Your task to perform on an android device: Show the shopping cart on ebay. Add "logitech g pro" to the cart on ebay, then select checkout. Image 0: 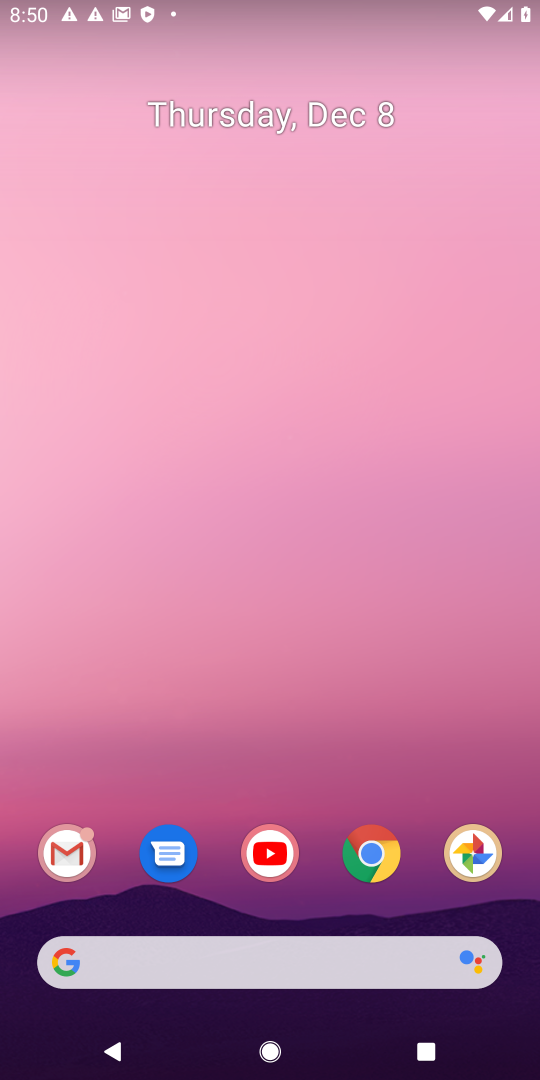
Step 0: click (235, 952)
Your task to perform on an android device: Show the shopping cart on ebay. Add "logitech g pro" to the cart on ebay, then select checkout. Image 1: 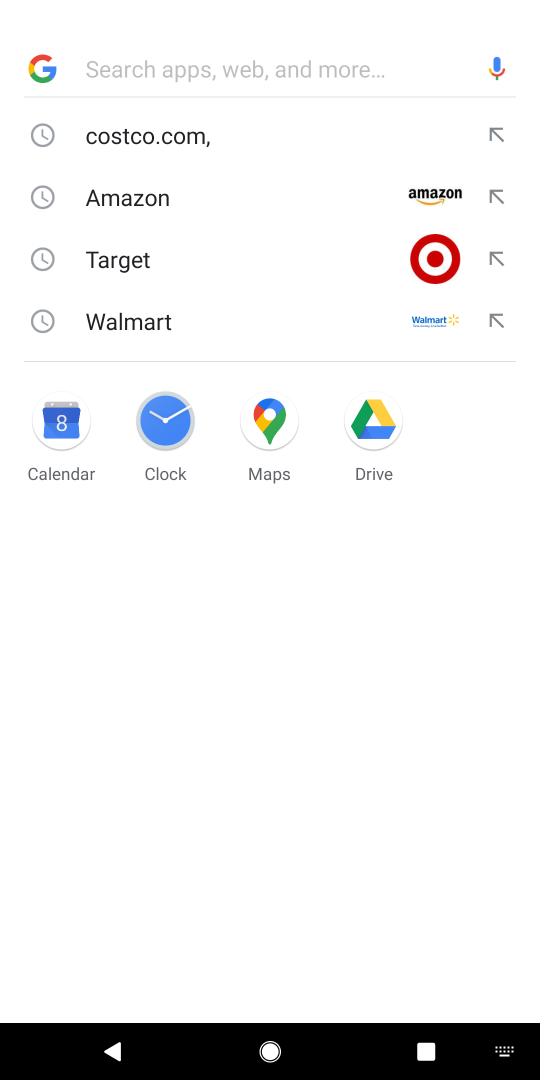
Step 1: type "ebay"
Your task to perform on an android device: Show the shopping cart on ebay. Add "logitech g pro" to the cart on ebay, then select checkout. Image 2: 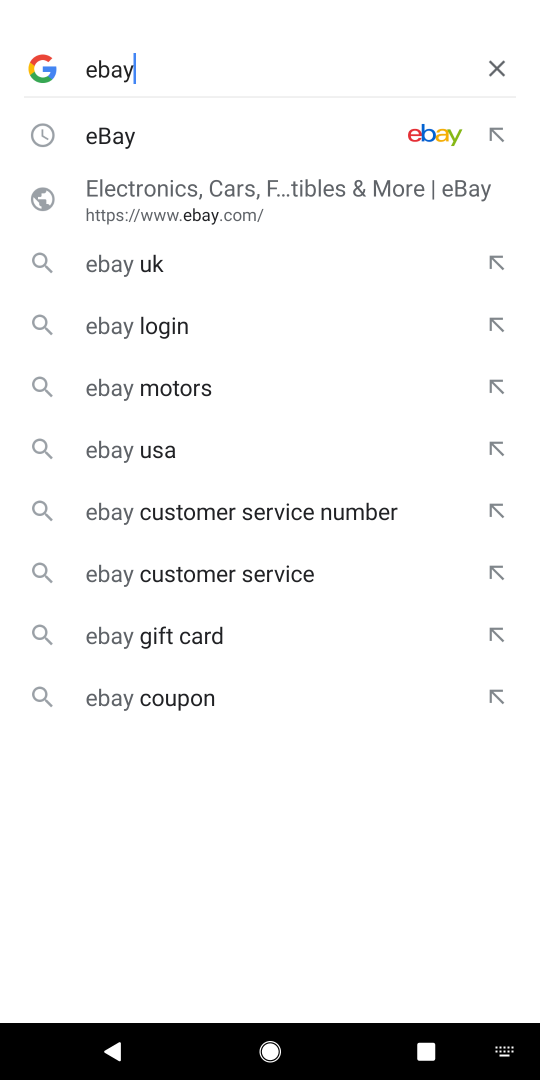
Step 2: click (135, 132)
Your task to perform on an android device: Show the shopping cart on ebay. Add "logitech g pro" to the cart on ebay, then select checkout. Image 3: 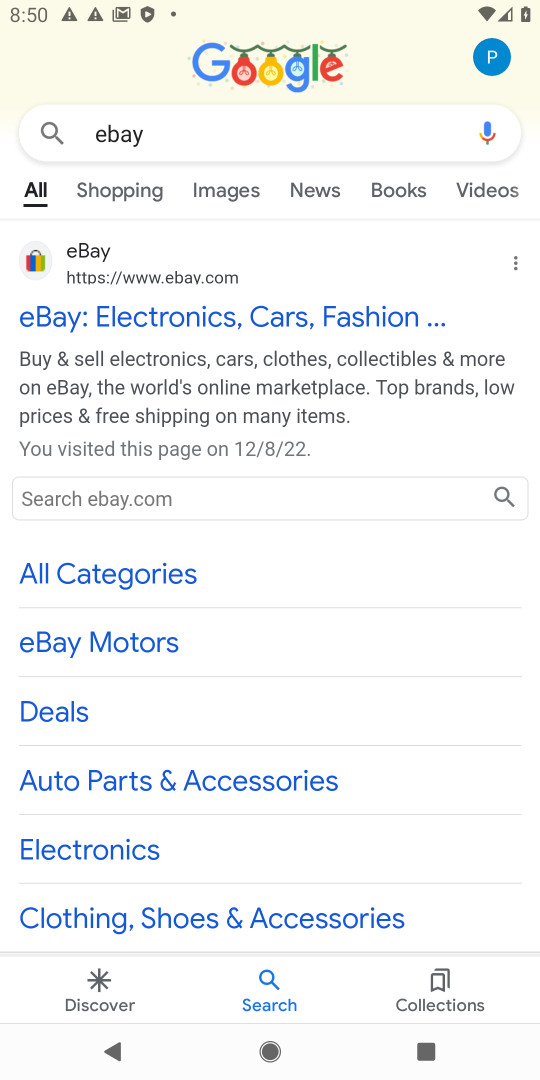
Step 3: click (142, 322)
Your task to perform on an android device: Show the shopping cart on ebay. Add "logitech g pro" to the cart on ebay, then select checkout. Image 4: 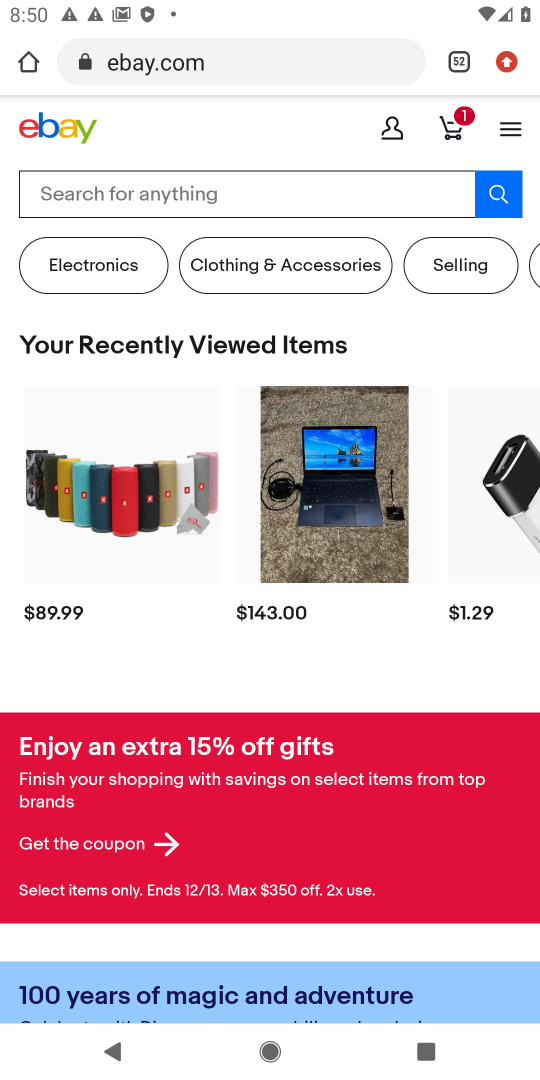
Step 4: click (462, 123)
Your task to perform on an android device: Show the shopping cart on ebay. Add "logitech g pro" to the cart on ebay, then select checkout. Image 5: 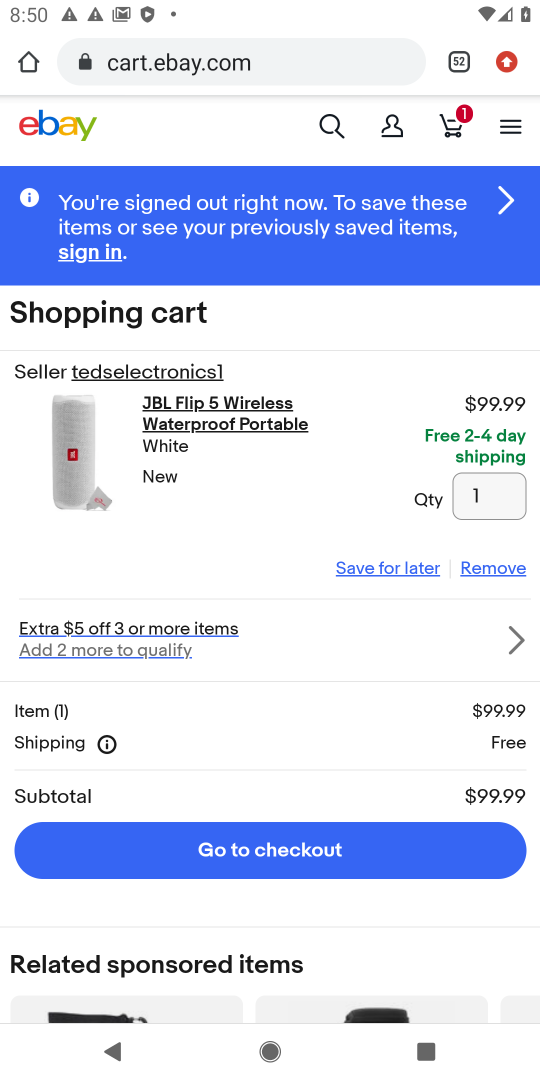
Step 5: click (330, 123)
Your task to perform on an android device: Show the shopping cart on ebay. Add "logitech g pro" to the cart on ebay, then select checkout. Image 6: 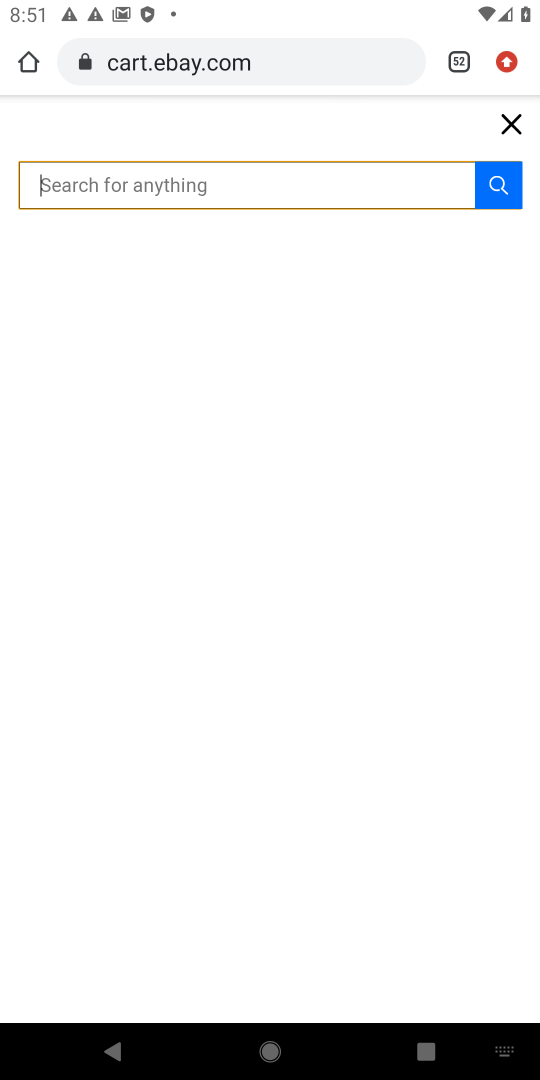
Step 6: type "logitech g pro"
Your task to perform on an android device: Show the shopping cart on ebay. Add "logitech g pro" to the cart on ebay, then select checkout. Image 7: 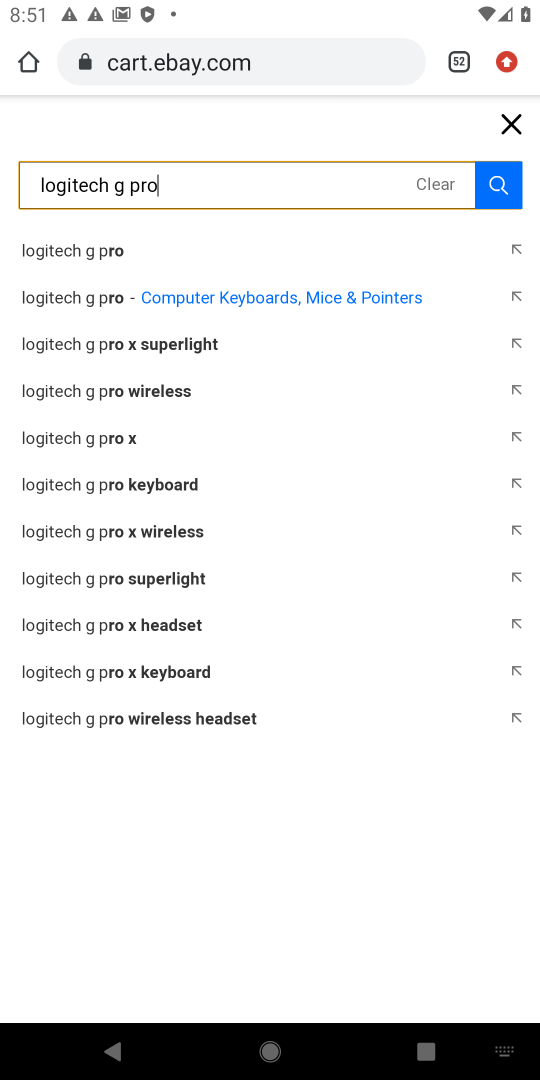
Step 7: click (90, 256)
Your task to perform on an android device: Show the shopping cart on ebay. Add "logitech g pro" to the cart on ebay, then select checkout. Image 8: 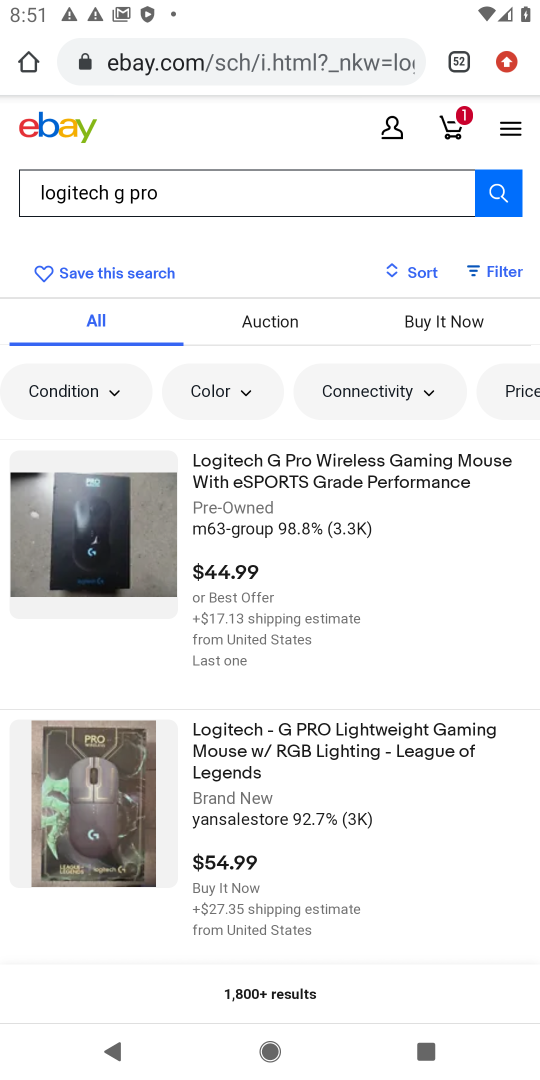
Step 8: click (259, 493)
Your task to perform on an android device: Show the shopping cart on ebay. Add "logitech g pro" to the cart on ebay, then select checkout. Image 9: 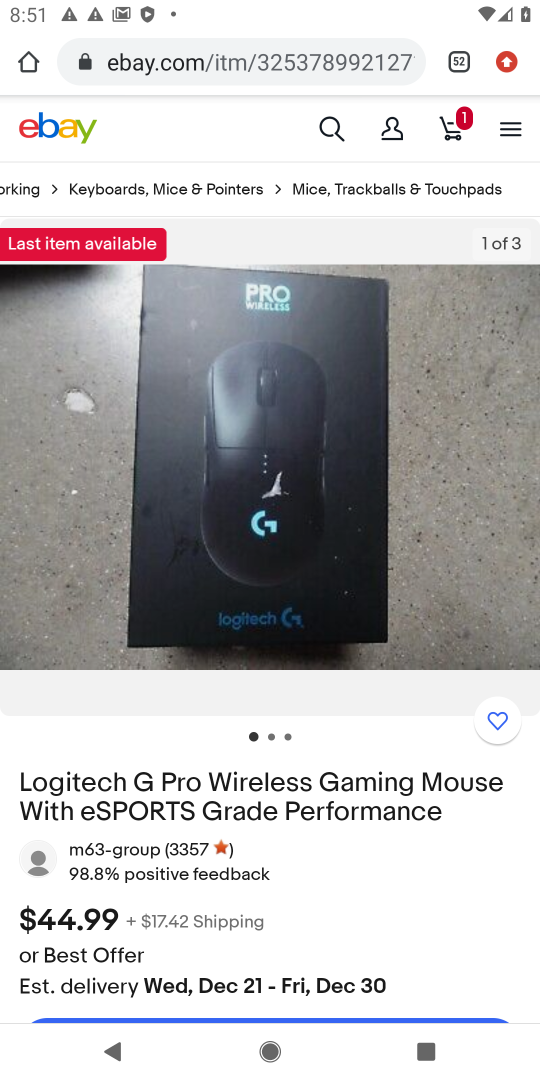
Step 9: drag from (355, 859) to (359, 482)
Your task to perform on an android device: Show the shopping cart on ebay. Add "logitech g pro" to the cart on ebay, then select checkout. Image 10: 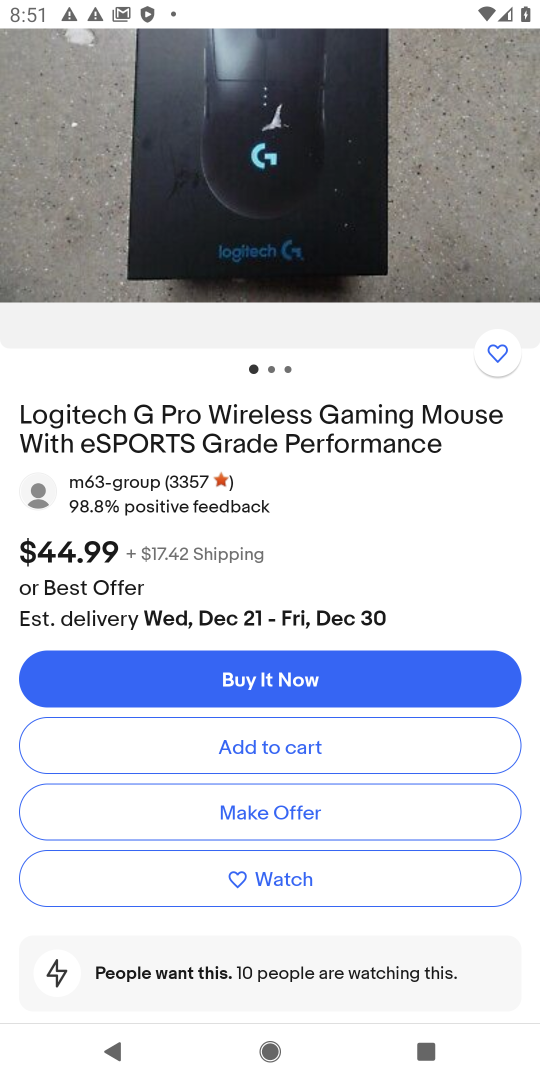
Step 10: click (245, 745)
Your task to perform on an android device: Show the shopping cart on ebay. Add "logitech g pro" to the cart on ebay, then select checkout. Image 11: 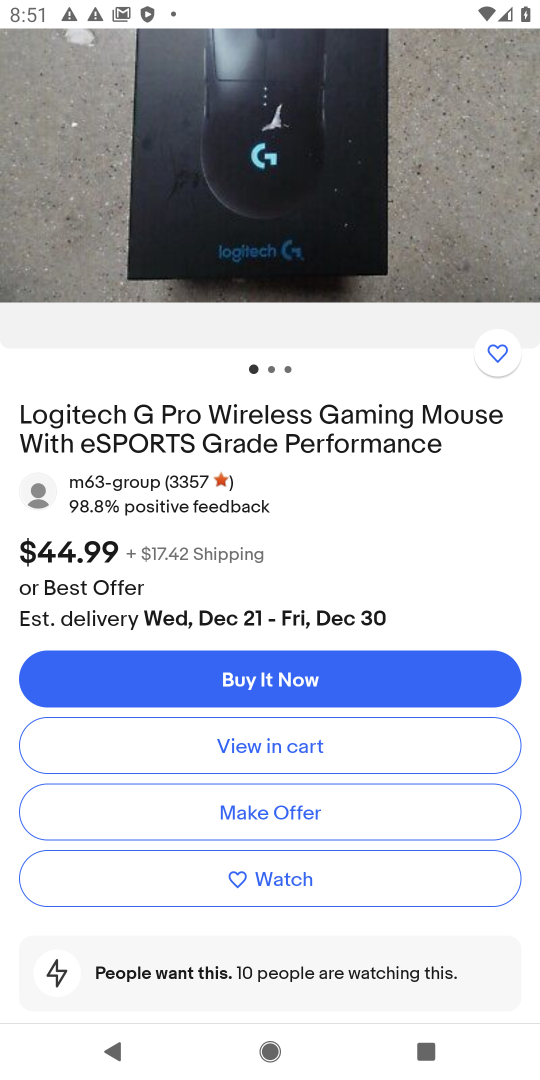
Step 11: click (282, 745)
Your task to perform on an android device: Show the shopping cart on ebay. Add "logitech g pro" to the cart on ebay, then select checkout. Image 12: 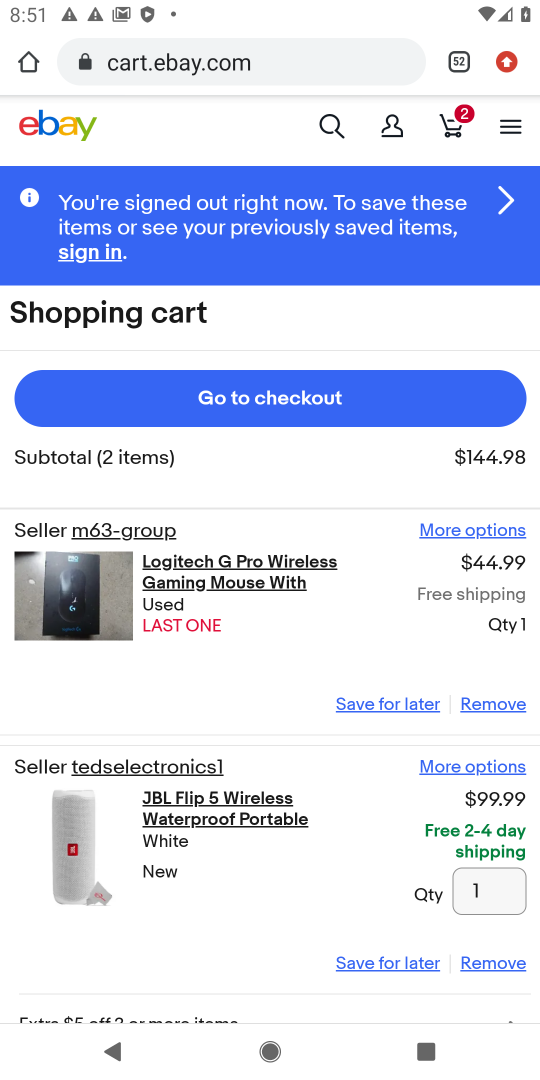
Step 12: click (302, 395)
Your task to perform on an android device: Show the shopping cart on ebay. Add "logitech g pro" to the cart on ebay, then select checkout. Image 13: 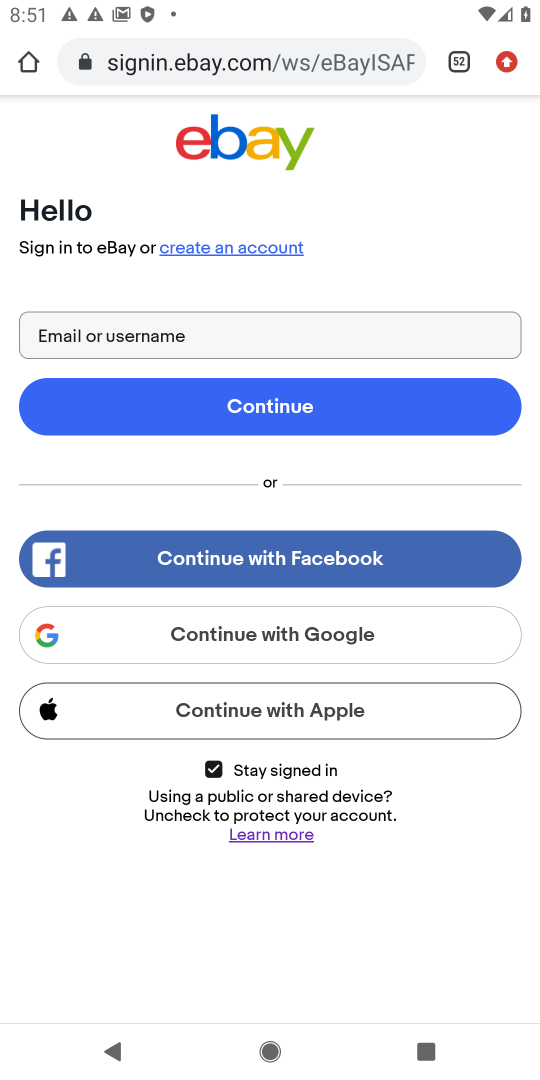
Step 13: task complete